Your task to perform on an android device: Open internet settings Image 0: 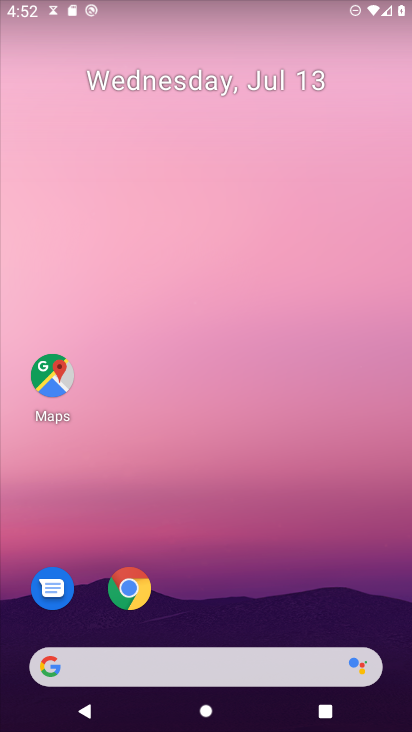
Step 0: drag from (294, 680) to (161, 123)
Your task to perform on an android device: Open internet settings Image 1: 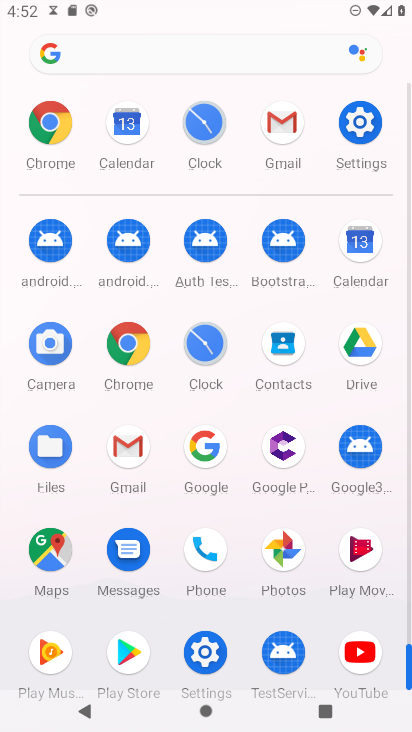
Step 1: click (204, 654)
Your task to perform on an android device: Open internet settings Image 2: 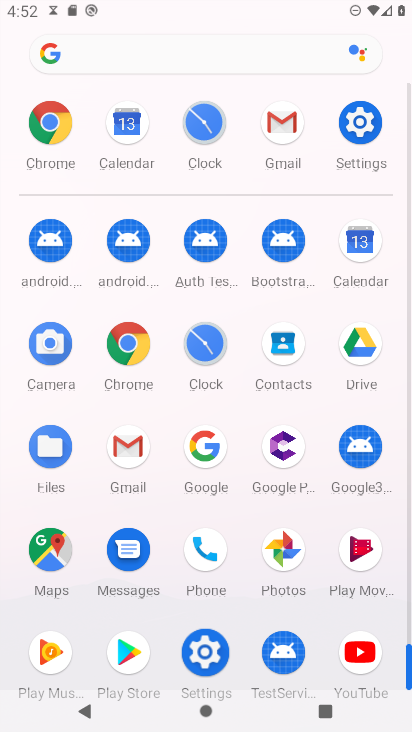
Step 2: click (199, 647)
Your task to perform on an android device: Open internet settings Image 3: 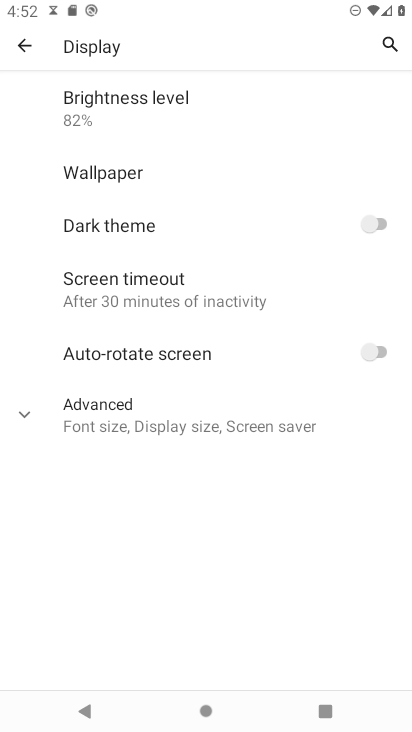
Step 3: click (22, 59)
Your task to perform on an android device: Open internet settings Image 4: 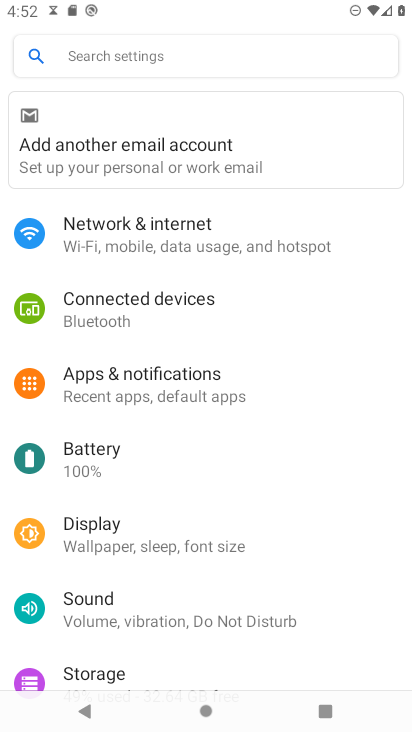
Step 4: drag from (159, 484) to (175, 273)
Your task to perform on an android device: Open internet settings Image 5: 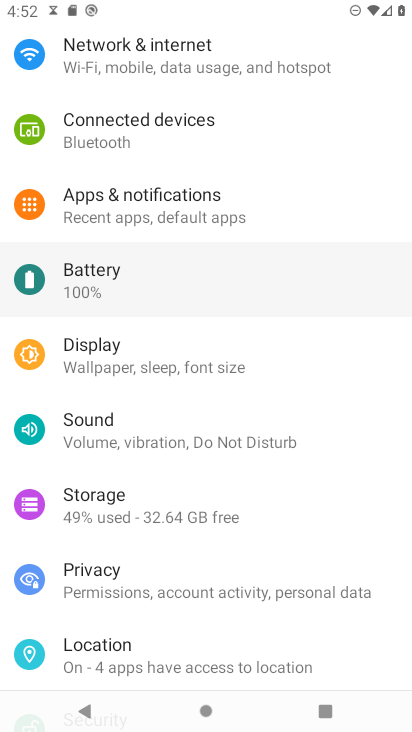
Step 5: drag from (155, 551) to (148, 290)
Your task to perform on an android device: Open internet settings Image 6: 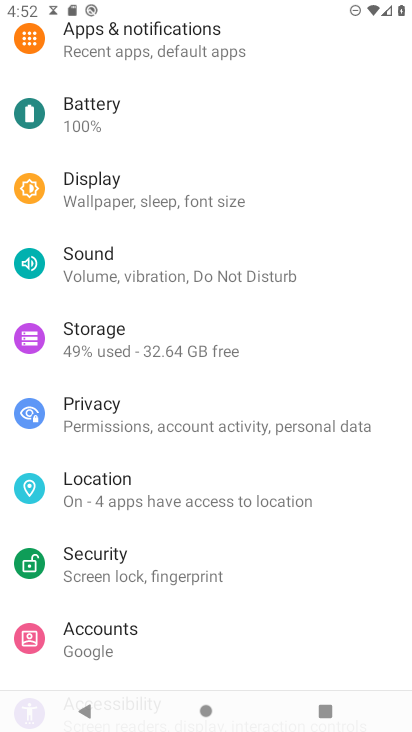
Step 6: drag from (152, 595) to (152, 149)
Your task to perform on an android device: Open internet settings Image 7: 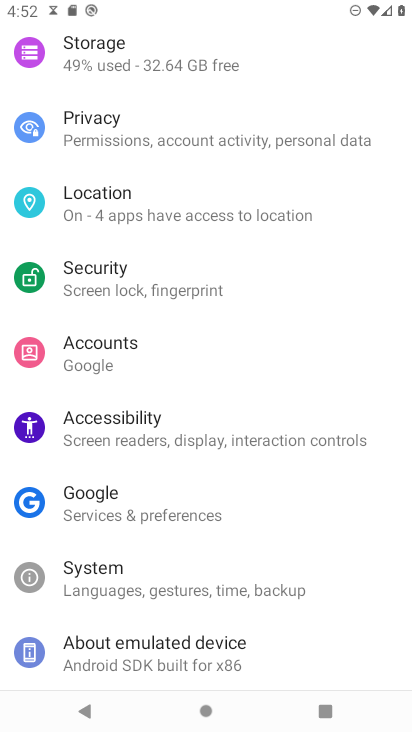
Step 7: drag from (123, 501) to (125, 21)
Your task to perform on an android device: Open internet settings Image 8: 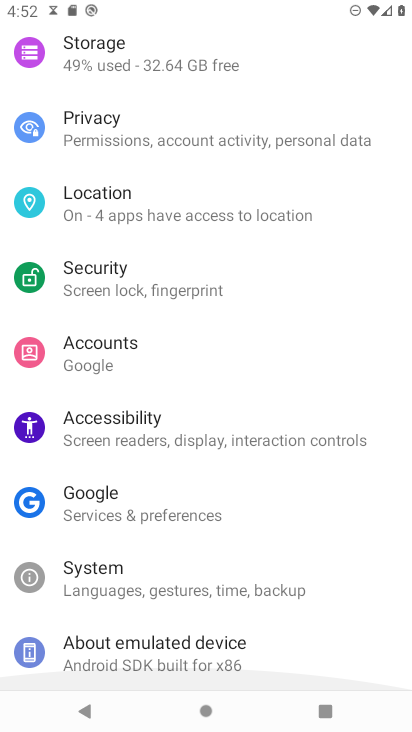
Step 8: drag from (175, 463) to (169, 120)
Your task to perform on an android device: Open internet settings Image 9: 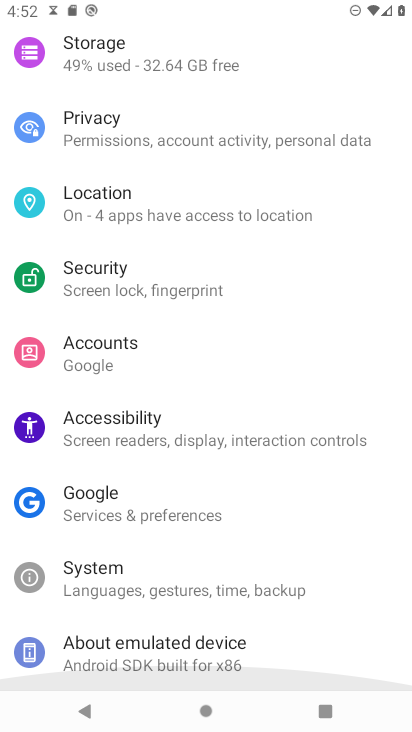
Step 9: drag from (185, 381) to (185, 150)
Your task to perform on an android device: Open internet settings Image 10: 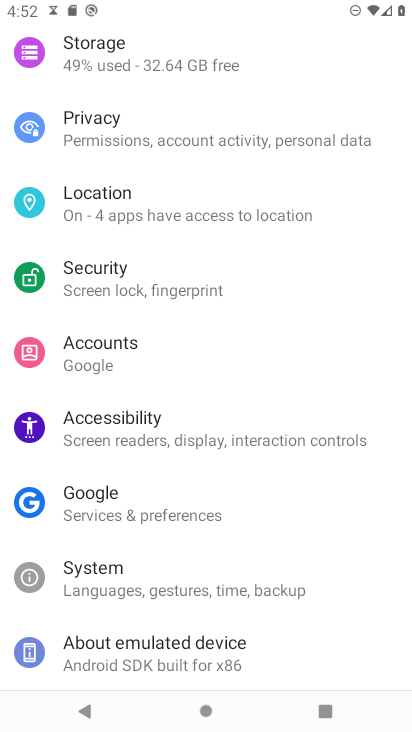
Step 10: drag from (71, 279) to (103, 494)
Your task to perform on an android device: Open internet settings Image 11: 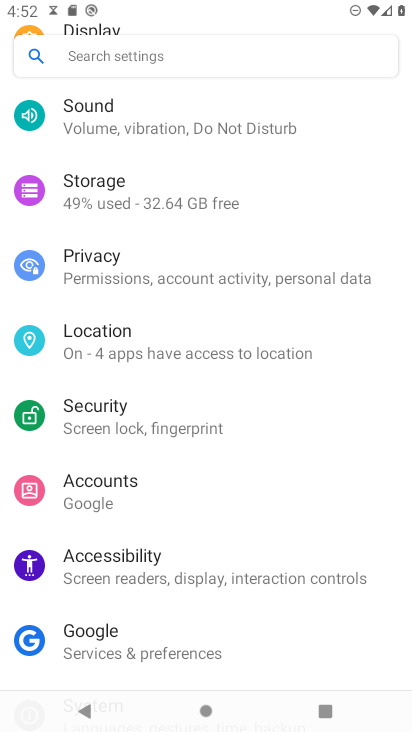
Step 11: drag from (192, 626) to (207, 690)
Your task to perform on an android device: Open internet settings Image 12: 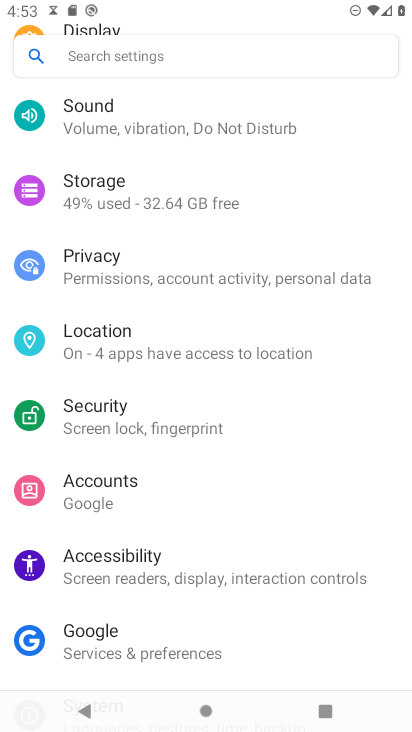
Step 12: drag from (227, 454) to (208, 520)
Your task to perform on an android device: Open internet settings Image 13: 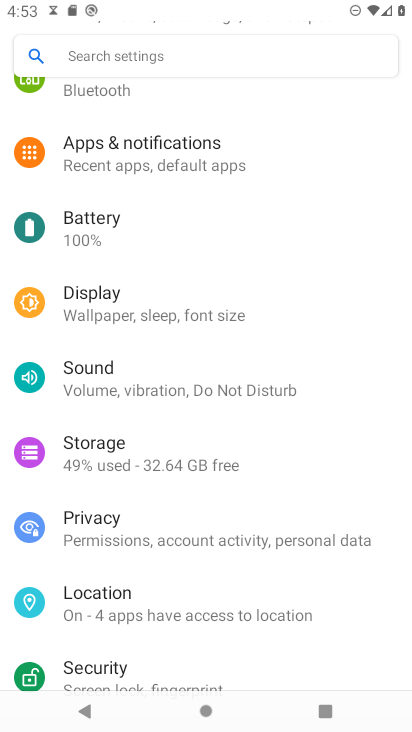
Step 13: drag from (134, 267) to (201, 522)
Your task to perform on an android device: Open internet settings Image 14: 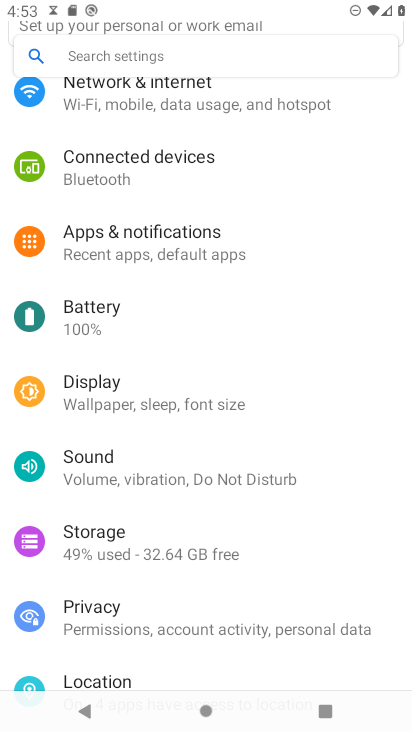
Step 14: drag from (130, 116) to (185, 488)
Your task to perform on an android device: Open internet settings Image 15: 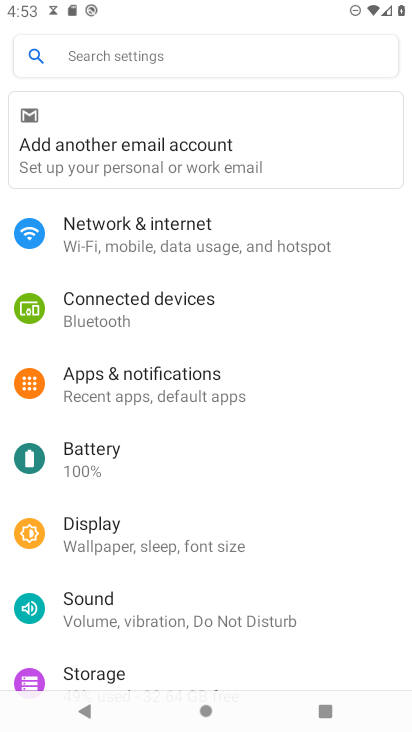
Step 15: click (134, 238)
Your task to perform on an android device: Open internet settings Image 16: 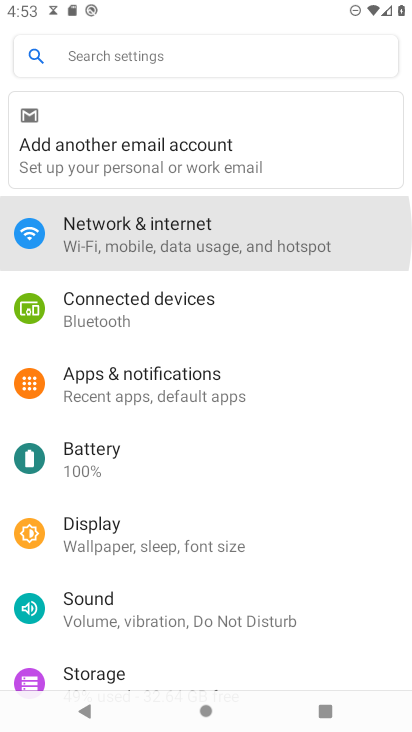
Step 16: click (135, 230)
Your task to perform on an android device: Open internet settings Image 17: 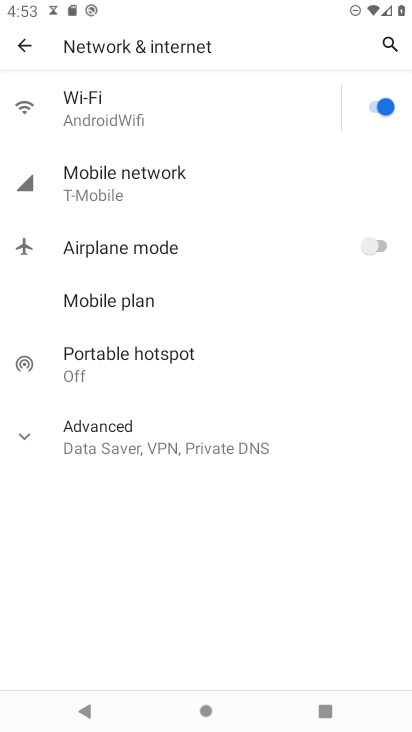
Step 17: task complete